Your task to perform on an android device: turn on notifications settings in the gmail app Image 0: 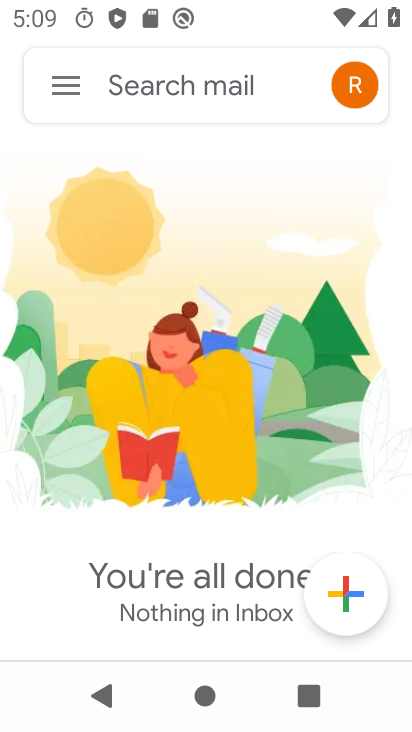
Step 0: click (64, 85)
Your task to perform on an android device: turn on notifications settings in the gmail app Image 1: 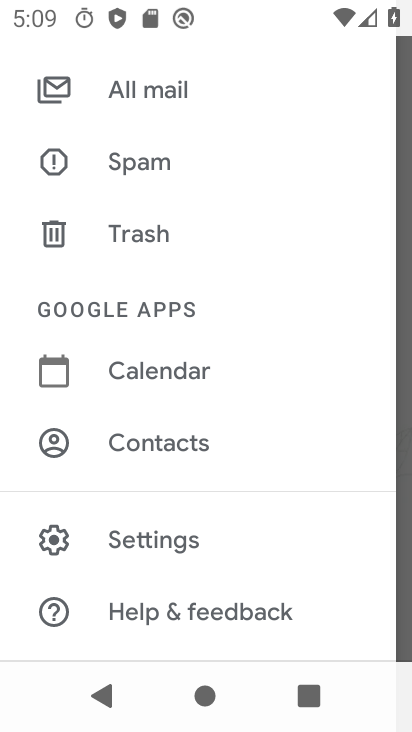
Step 1: click (141, 534)
Your task to perform on an android device: turn on notifications settings in the gmail app Image 2: 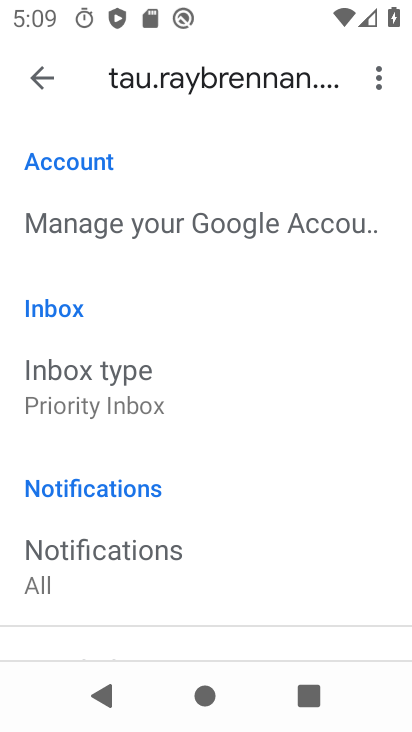
Step 2: drag from (196, 586) to (168, 213)
Your task to perform on an android device: turn on notifications settings in the gmail app Image 3: 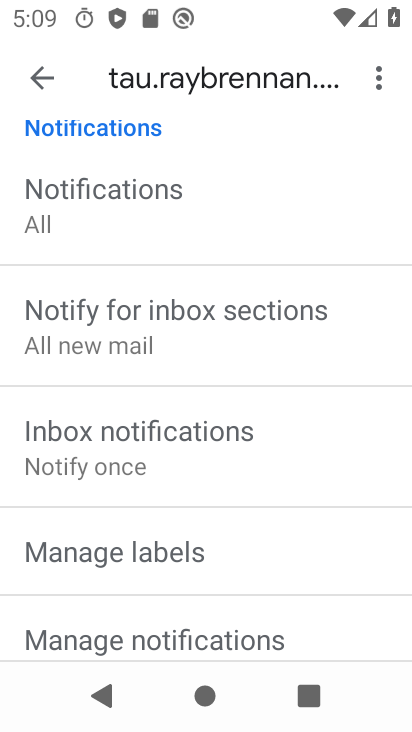
Step 3: click (220, 634)
Your task to perform on an android device: turn on notifications settings in the gmail app Image 4: 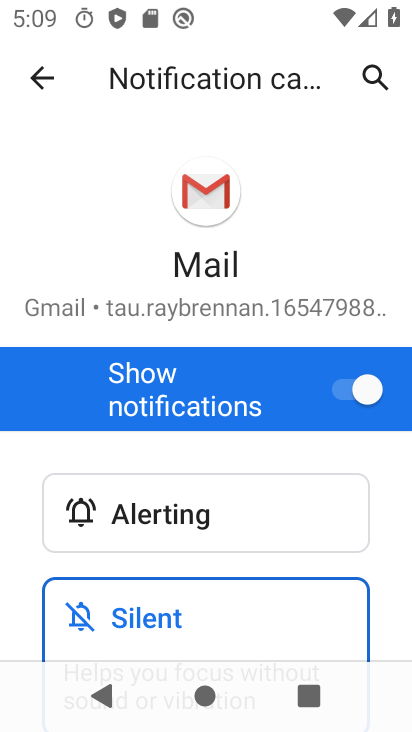
Step 4: task complete